Your task to perform on an android device: add a contact in the contacts app Image 0: 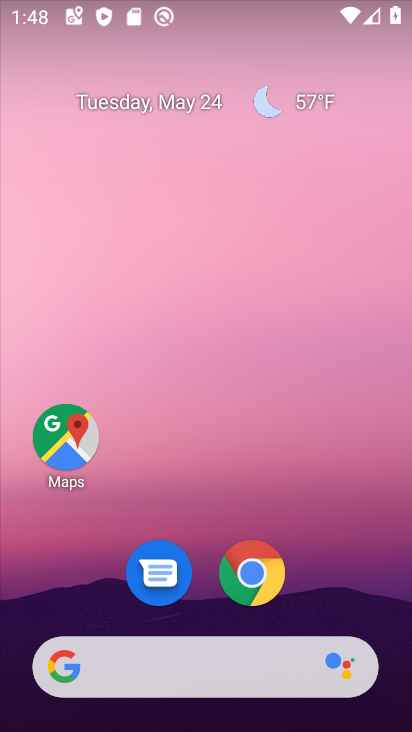
Step 0: drag from (347, 580) to (328, 244)
Your task to perform on an android device: add a contact in the contacts app Image 1: 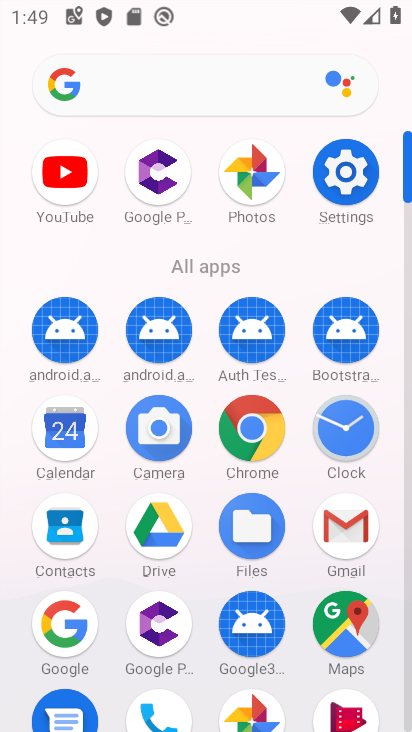
Step 1: click (61, 515)
Your task to perform on an android device: add a contact in the contacts app Image 2: 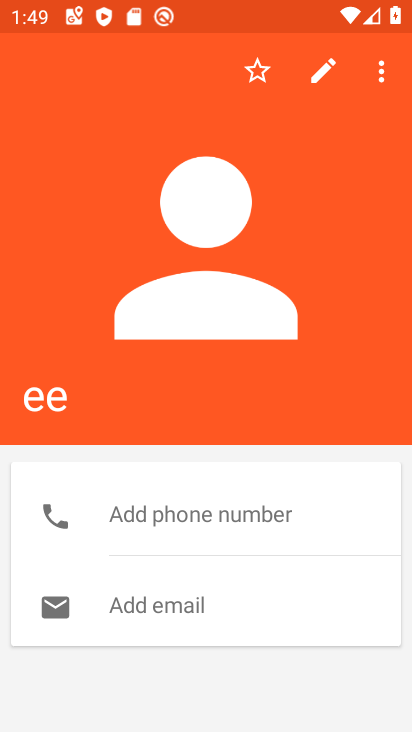
Step 2: press home button
Your task to perform on an android device: add a contact in the contacts app Image 3: 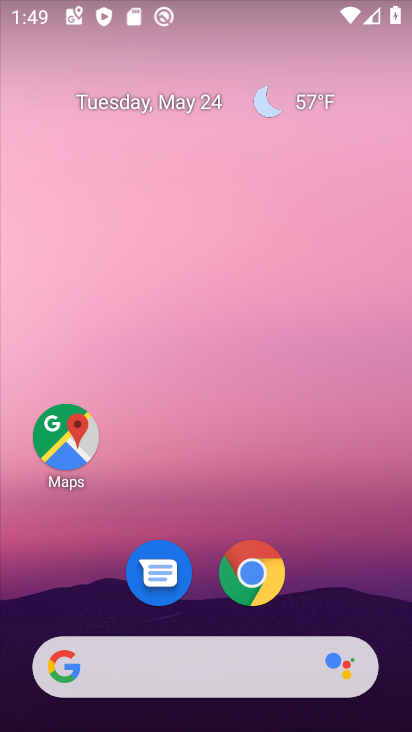
Step 3: drag from (370, 584) to (387, 224)
Your task to perform on an android device: add a contact in the contacts app Image 4: 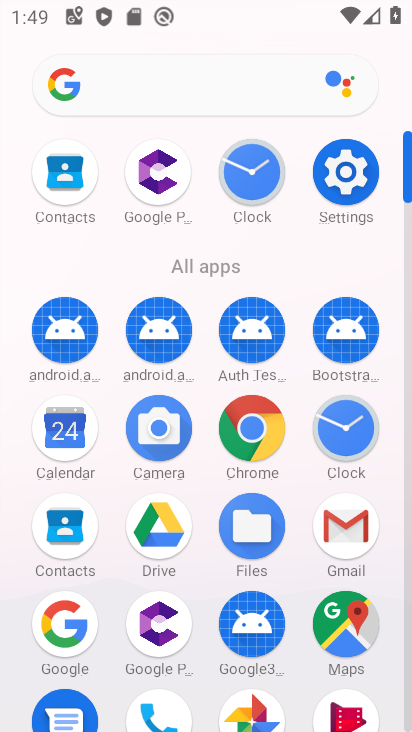
Step 4: click (51, 535)
Your task to perform on an android device: add a contact in the contacts app Image 5: 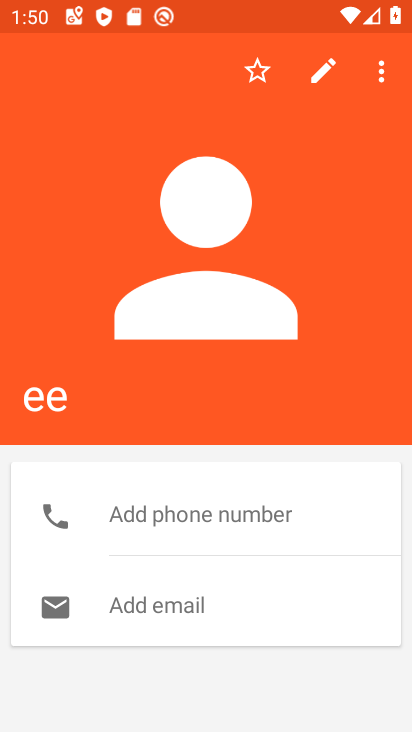
Step 5: press back button
Your task to perform on an android device: add a contact in the contacts app Image 6: 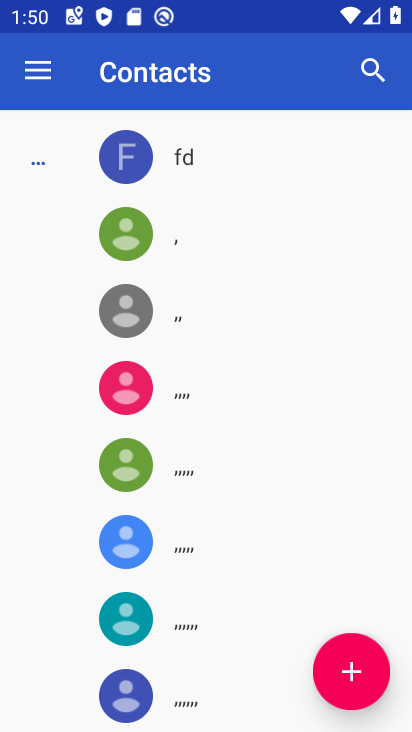
Step 6: click (336, 656)
Your task to perform on an android device: add a contact in the contacts app Image 7: 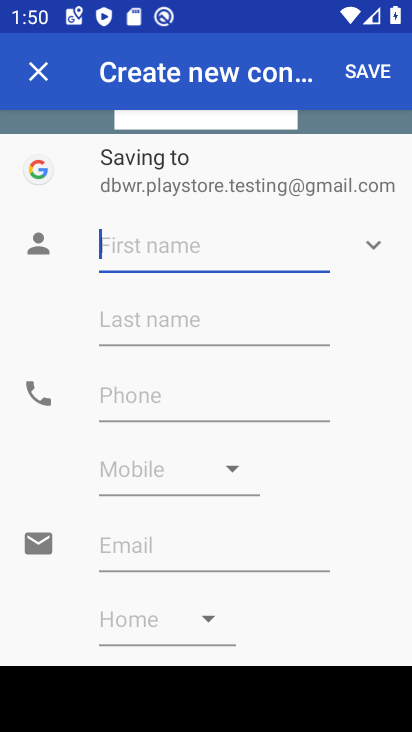
Step 7: type "gg"
Your task to perform on an android device: add a contact in the contacts app Image 8: 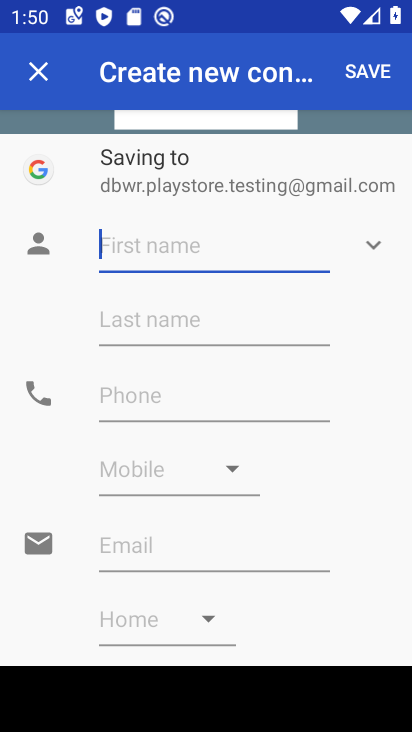
Step 8: click (206, 396)
Your task to perform on an android device: add a contact in the contacts app Image 9: 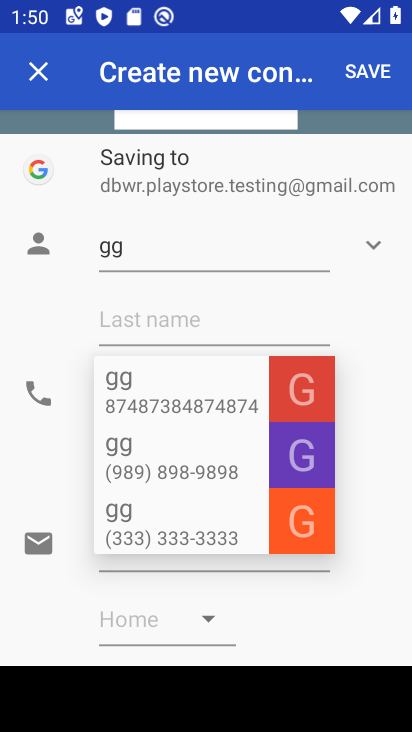
Step 9: type "1234566787"
Your task to perform on an android device: add a contact in the contacts app Image 10: 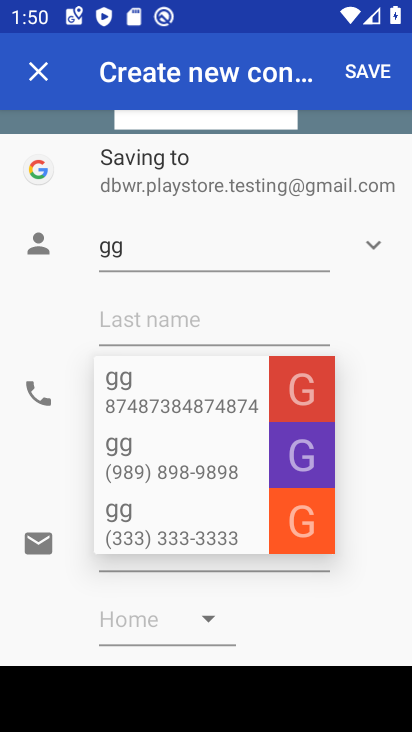
Step 10: click (385, 81)
Your task to perform on an android device: add a contact in the contacts app Image 11: 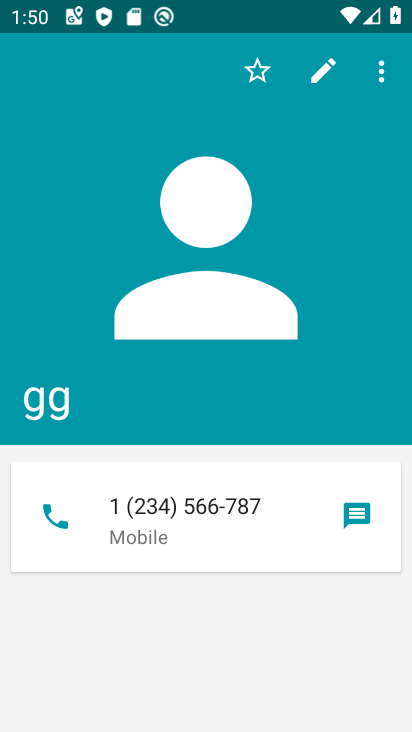
Step 11: task complete